Your task to perform on an android device: open app "Fetch Rewards" (install if not already installed) and enter user name: "Westwood@yahoo.com" and password: "qualifying" Image 0: 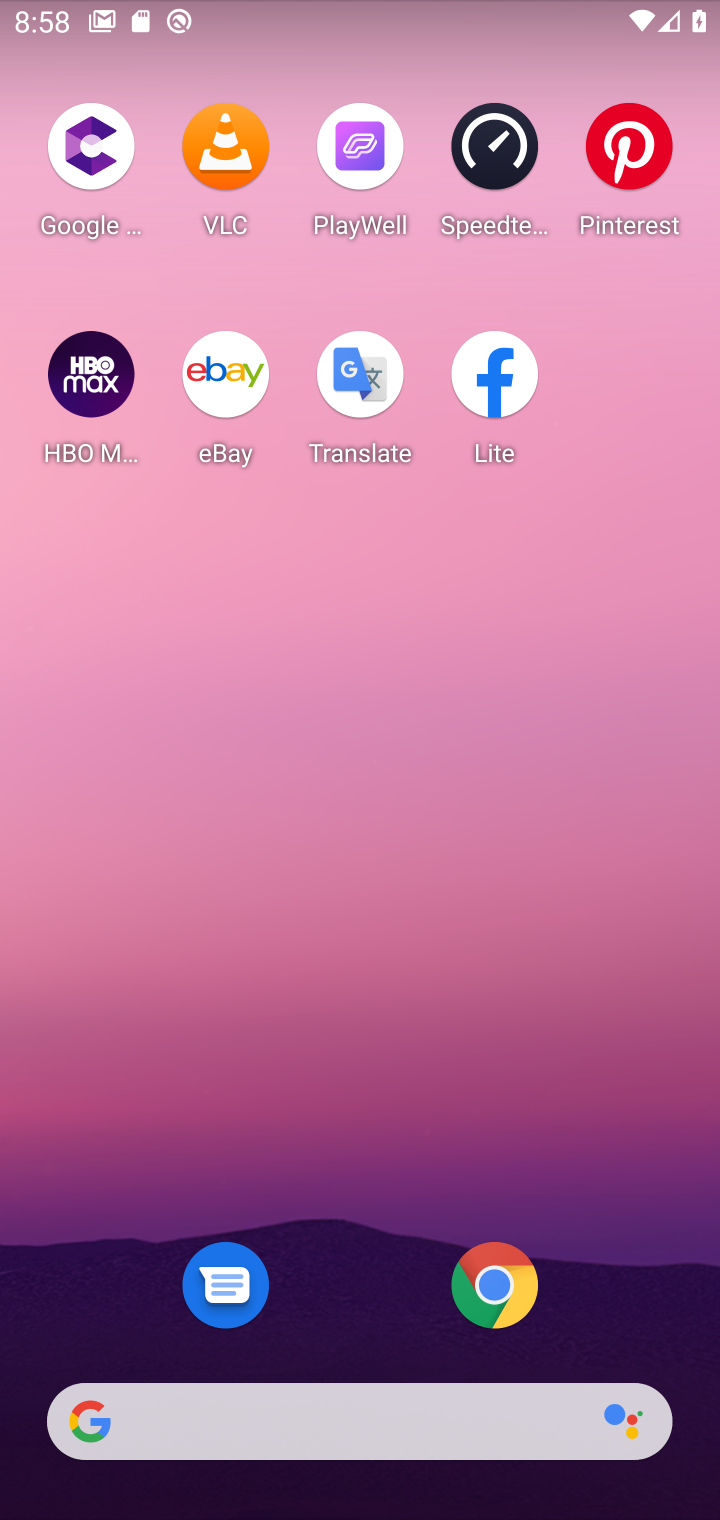
Step 0: drag from (618, 357) to (622, 276)
Your task to perform on an android device: open app "Fetch Rewards" (install if not already installed) and enter user name: "Westwood@yahoo.com" and password: "qualifying" Image 1: 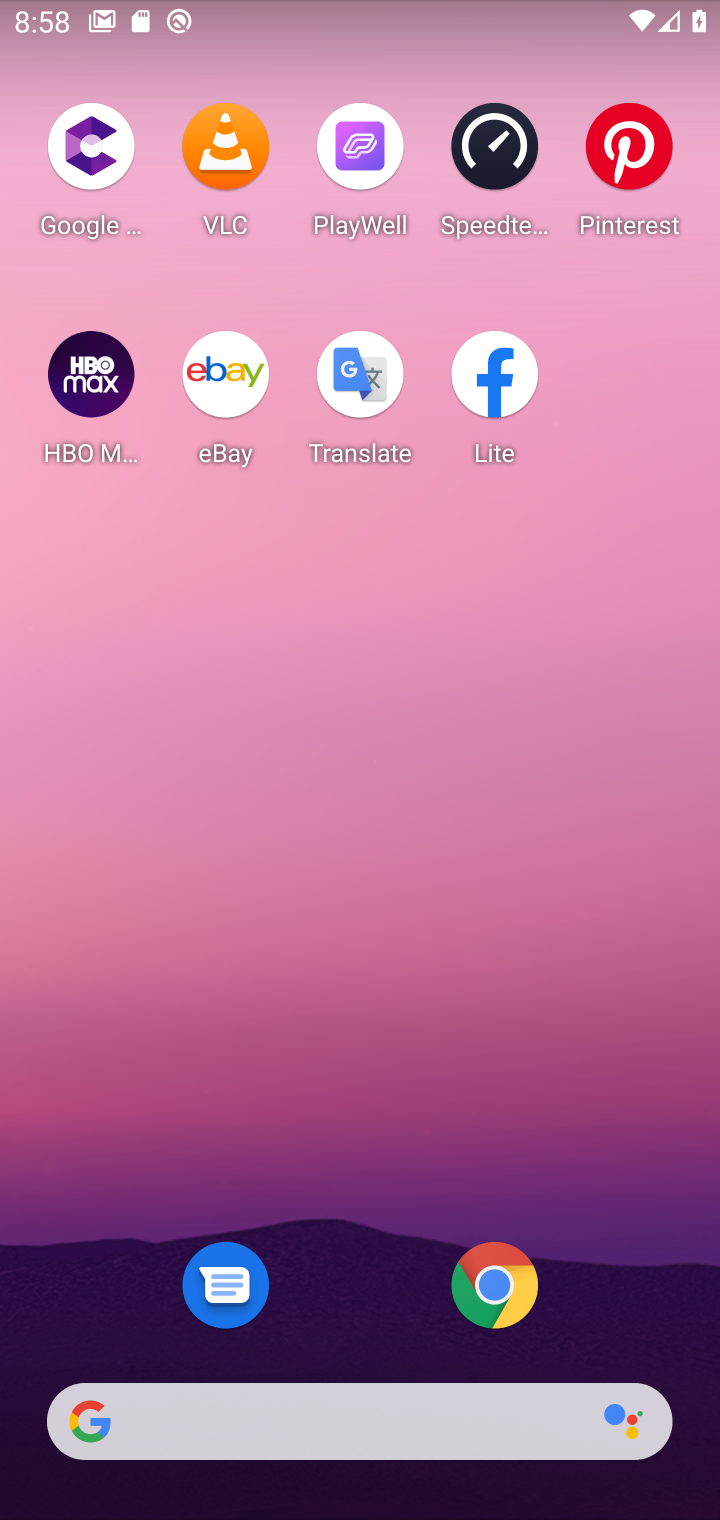
Step 1: drag from (607, 384) to (593, 210)
Your task to perform on an android device: open app "Fetch Rewards" (install if not already installed) and enter user name: "Westwood@yahoo.com" and password: "qualifying" Image 2: 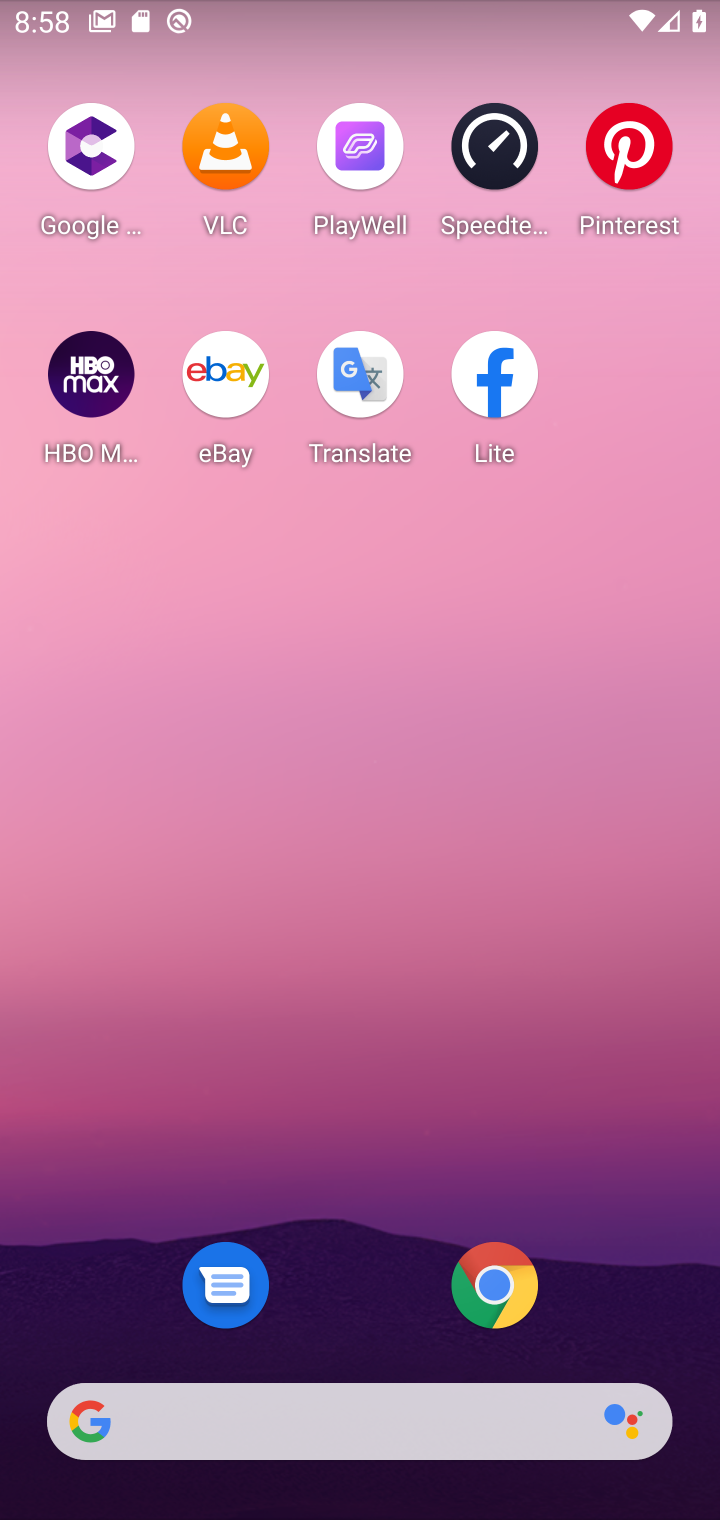
Step 2: drag from (677, 1406) to (575, 235)
Your task to perform on an android device: open app "Fetch Rewards" (install if not already installed) and enter user name: "Westwood@yahoo.com" and password: "qualifying" Image 3: 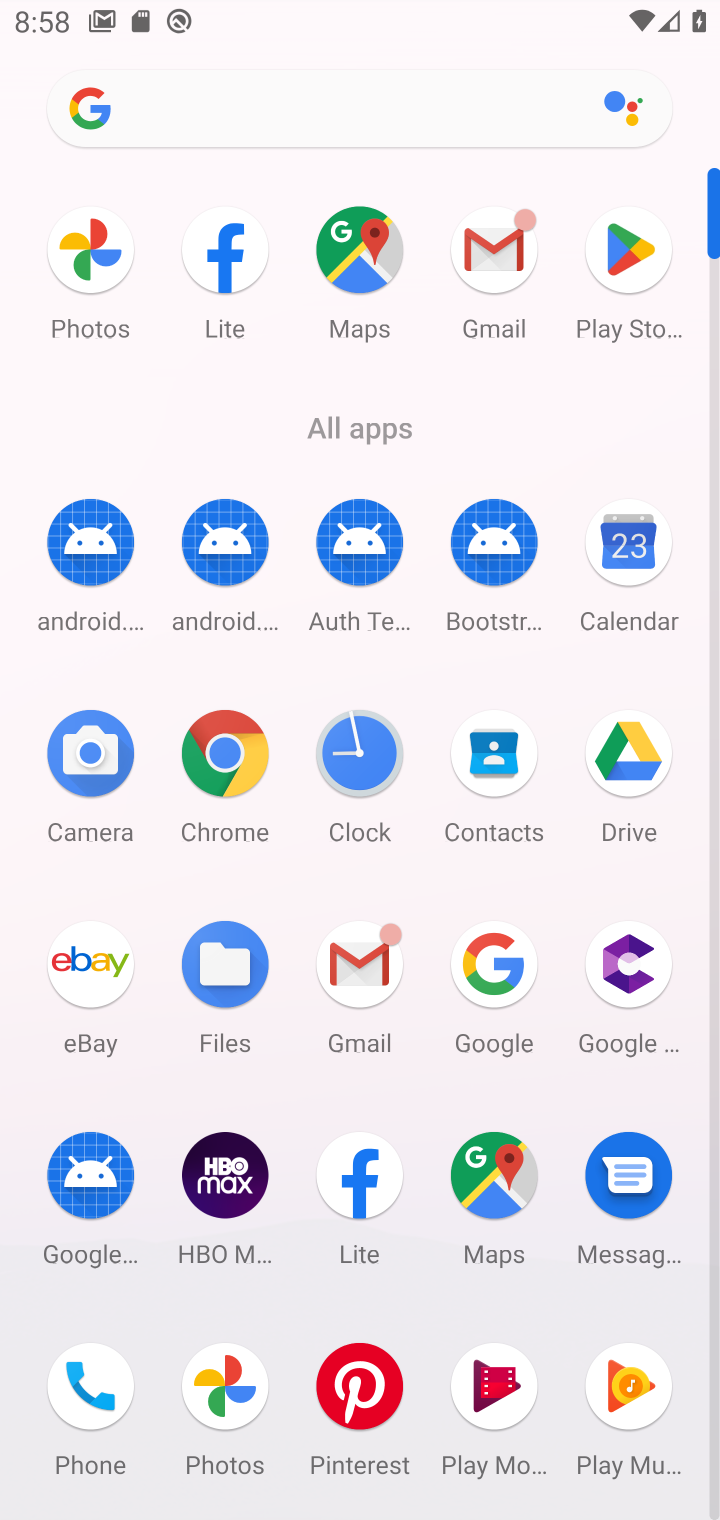
Step 3: drag from (288, 1317) to (274, 574)
Your task to perform on an android device: open app "Fetch Rewards" (install if not already installed) and enter user name: "Westwood@yahoo.com" and password: "qualifying" Image 4: 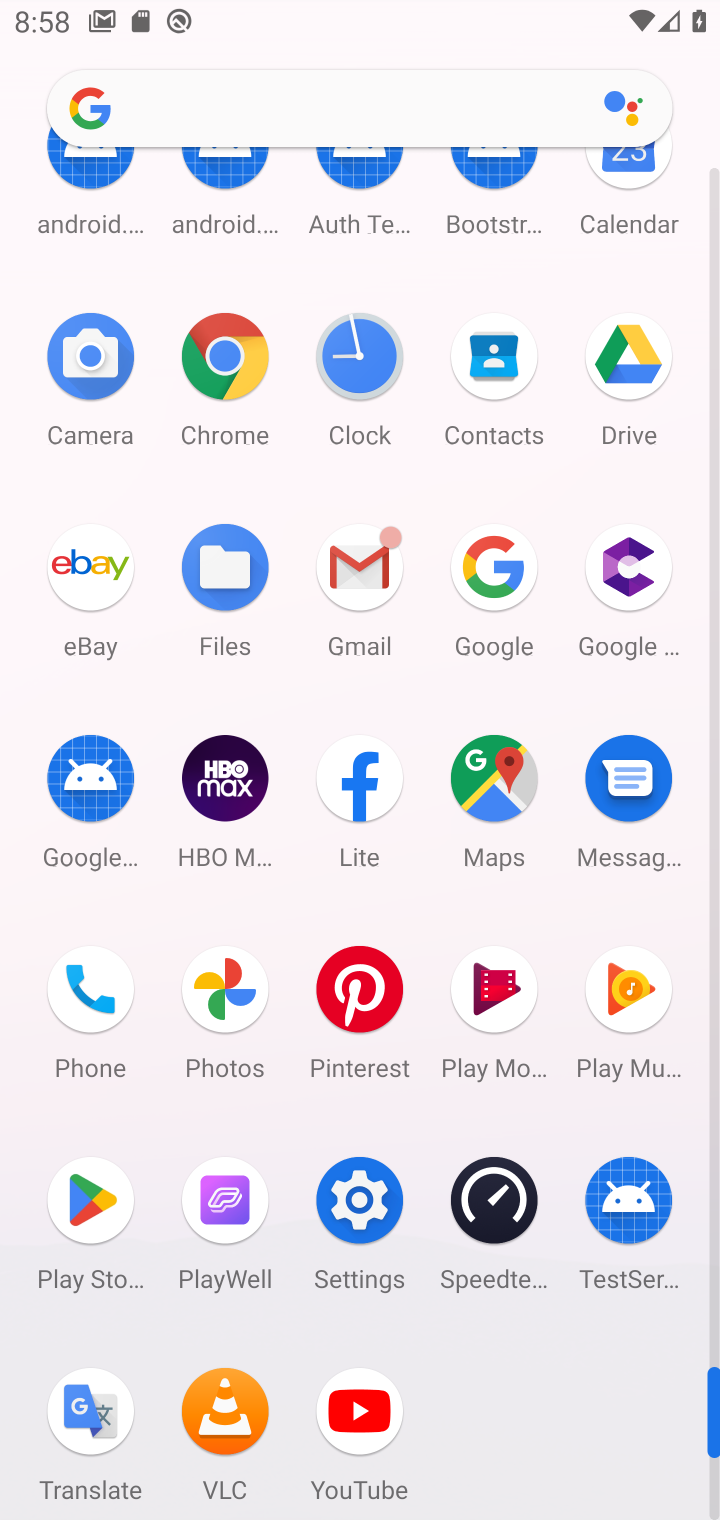
Step 4: click (86, 1204)
Your task to perform on an android device: open app "Fetch Rewards" (install if not already installed) and enter user name: "Westwood@yahoo.com" and password: "qualifying" Image 5: 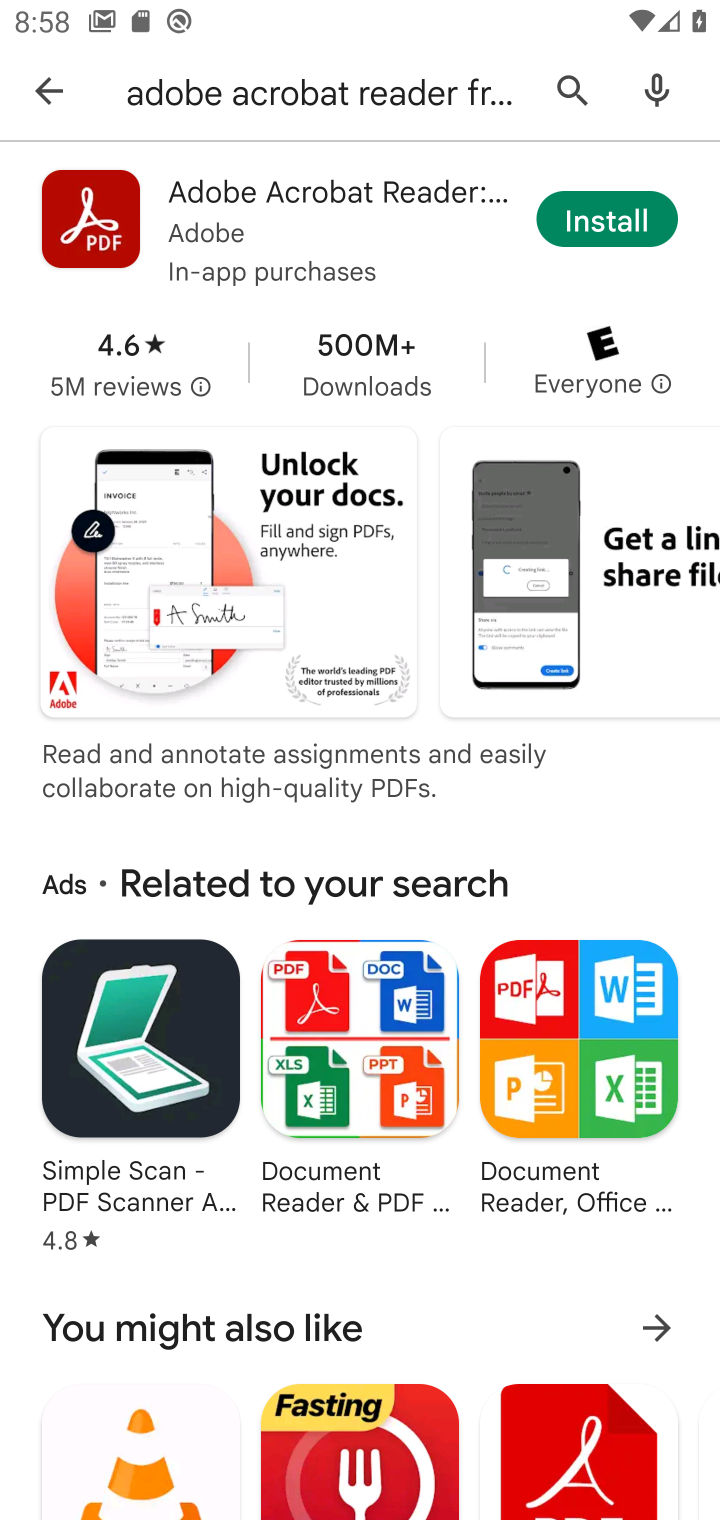
Step 5: click (571, 79)
Your task to perform on an android device: open app "Fetch Rewards" (install if not already installed) and enter user name: "Westwood@yahoo.com" and password: "qualifying" Image 6: 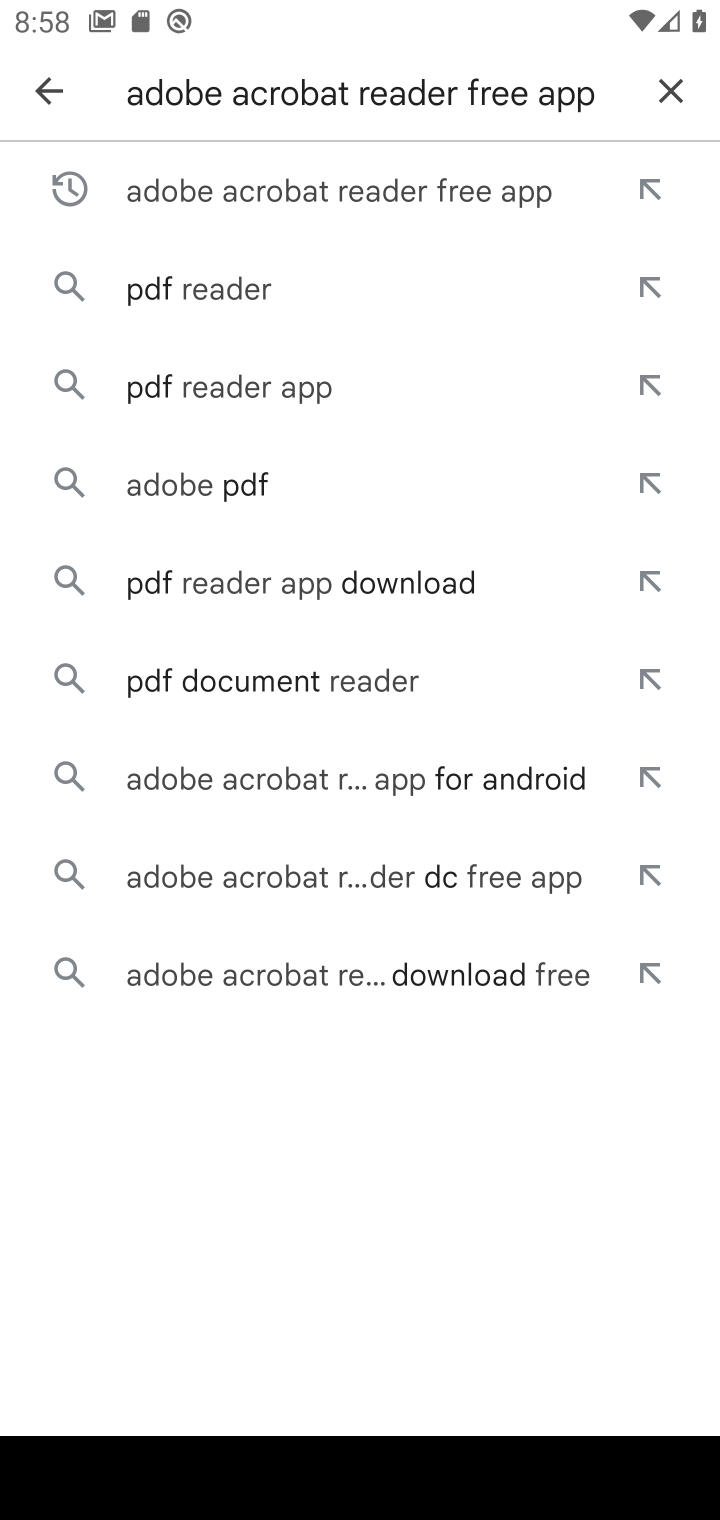
Step 6: click (673, 88)
Your task to perform on an android device: open app "Fetch Rewards" (install if not already installed) and enter user name: "Westwood@yahoo.com" and password: "qualifying" Image 7: 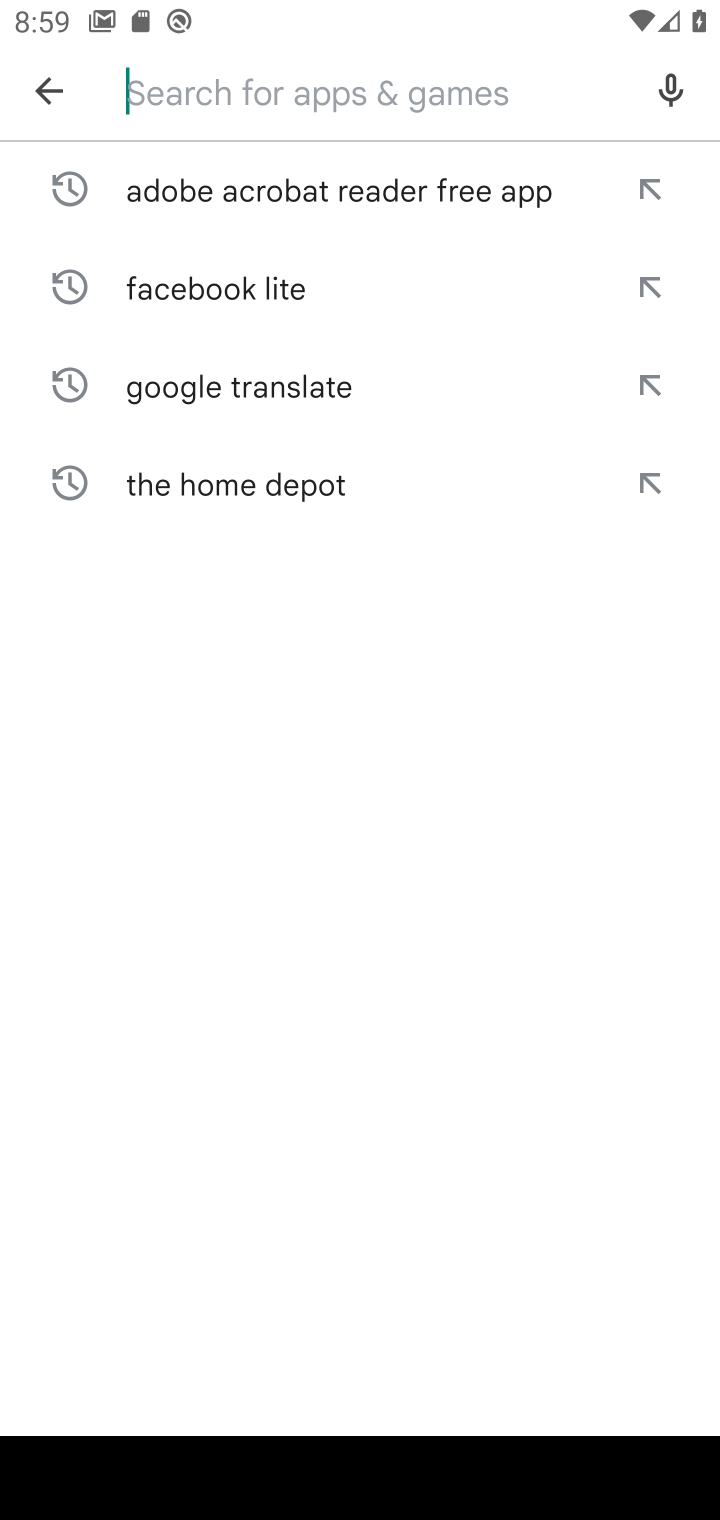
Step 7: type "Fetch Rewards"
Your task to perform on an android device: open app "Fetch Rewards" (install if not already installed) and enter user name: "Westwood@yahoo.com" and password: "qualifying" Image 8: 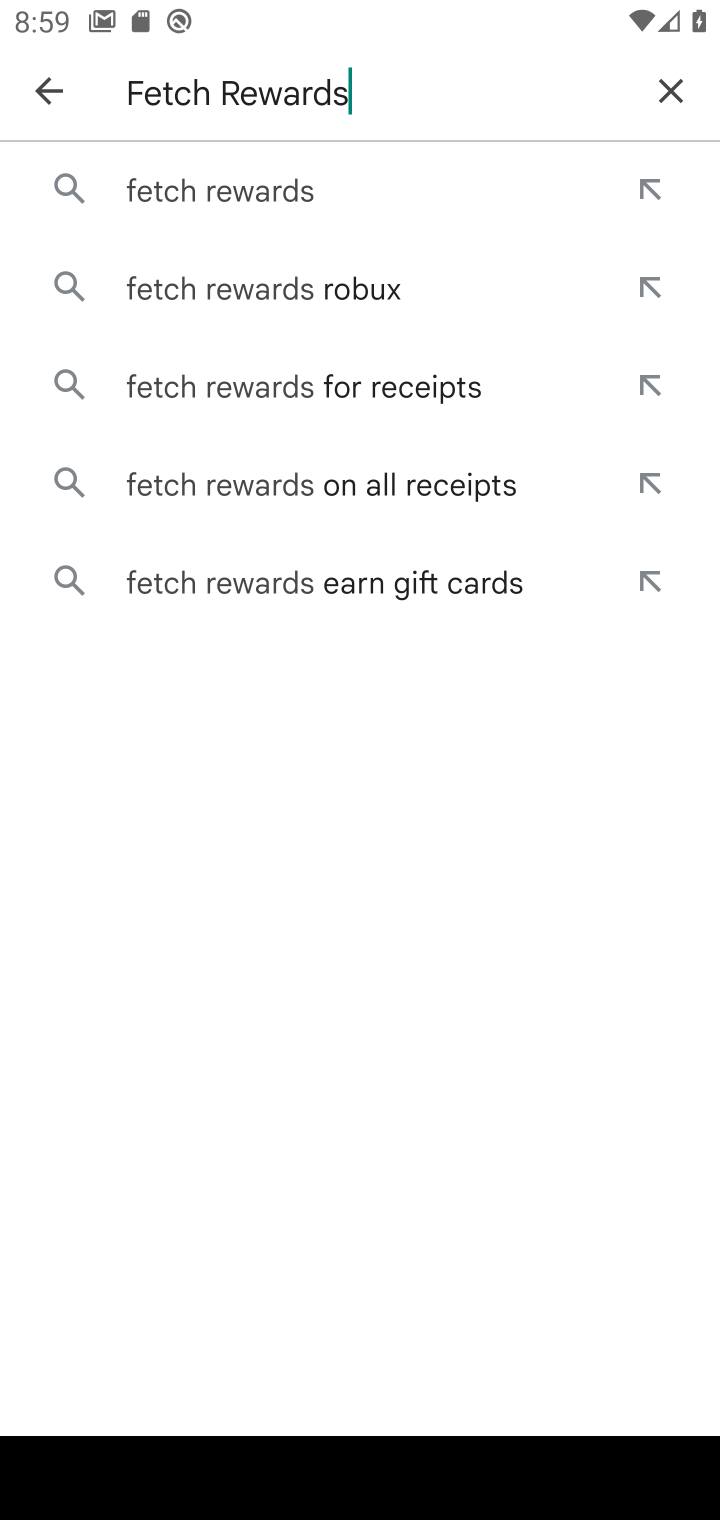
Step 8: click (214, 192)
Your task to perform on an android device: open app "Fetch Rewards" (install if not already installed) and enter user name: "Westwood@yahoo.com" and password: "qualifying" Image 9: 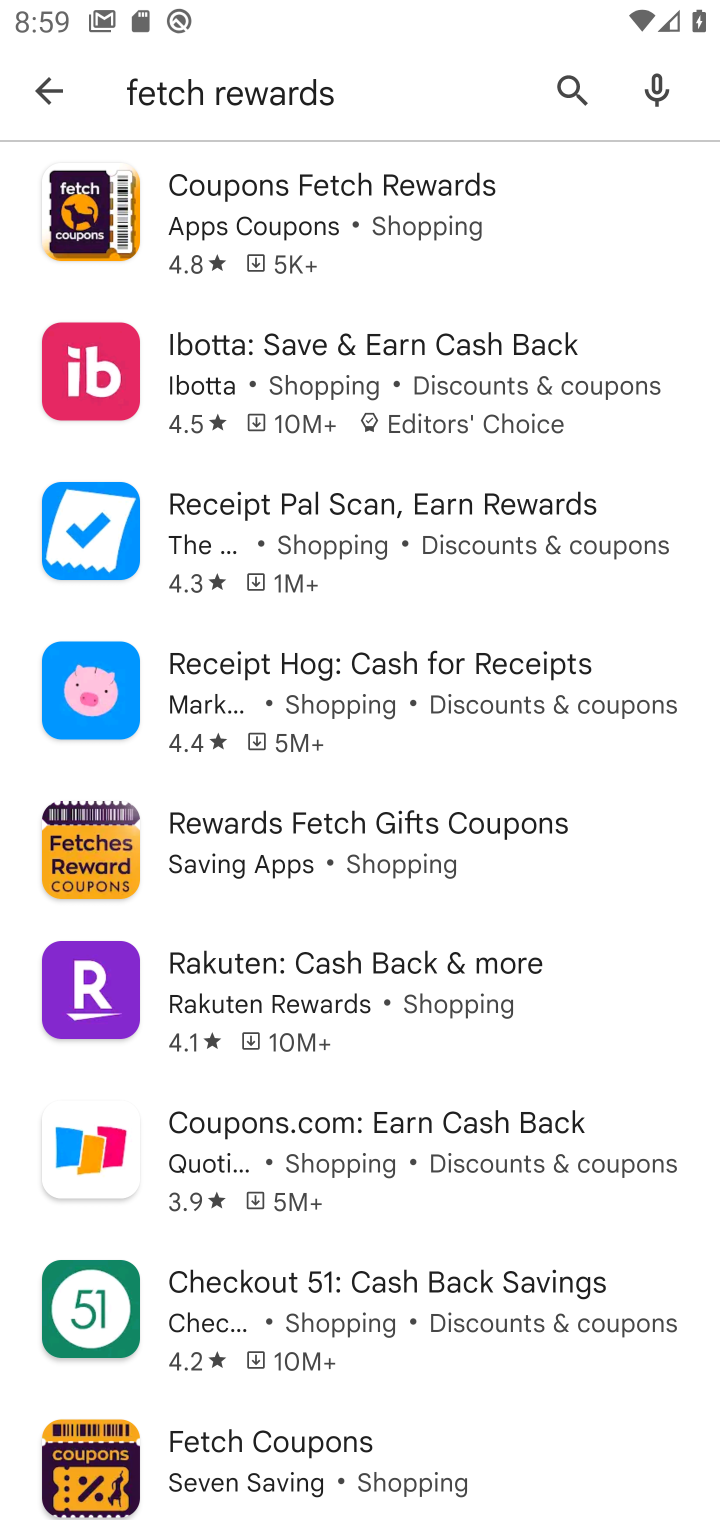
Step 9: task complete